Your task to perform on an android device: open app "Nova Launcher" (install if not already installed) Image 0: 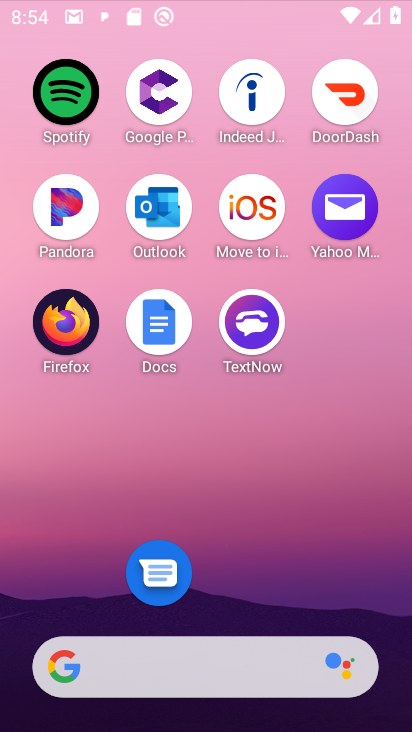
Step 0: click (227, 3)
Your task to perform on an android device: open app "Nova Launcher" (install if not already installed) Image 1: 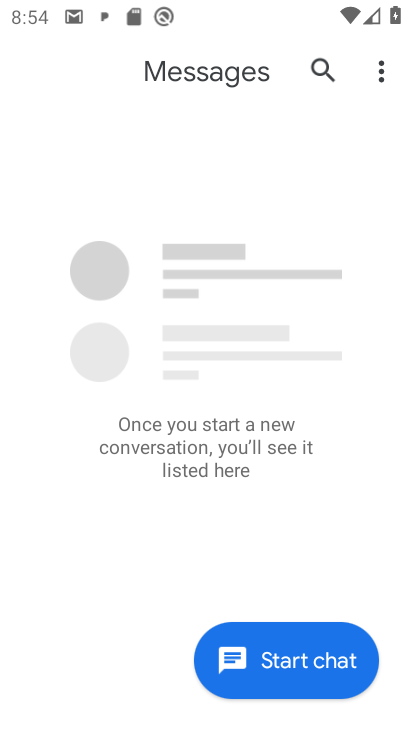
Step 1: press home button
Your task to perform on an android device: open app "Nova Launcher" (install if not already installed) Image 2: 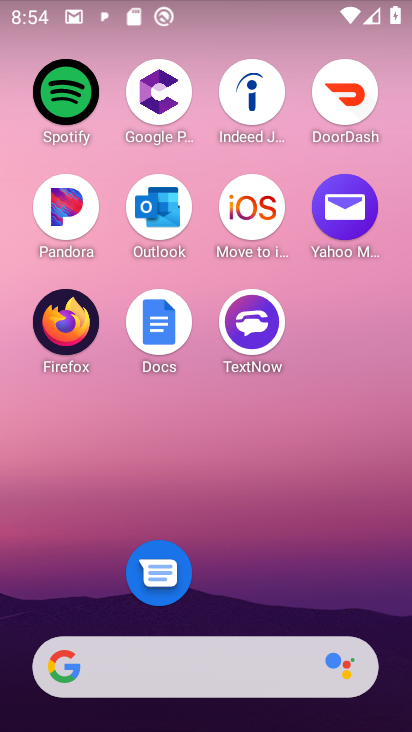
Step 2: drag from (224, 593) to (249, 49)
Your task to perform on an android device: open app "Nova Launcher" (install if not already installed) Image 3: 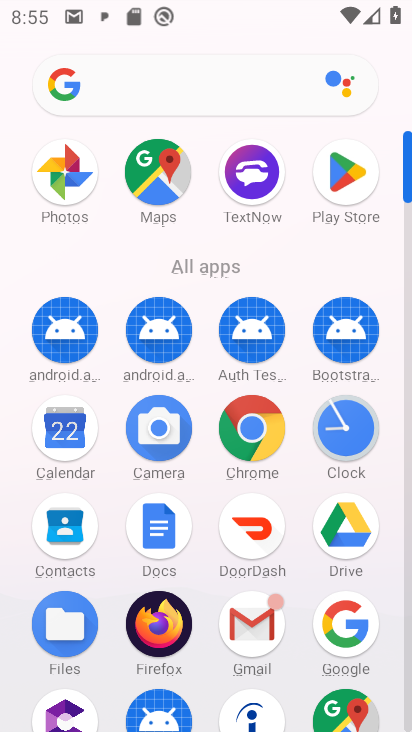
Step 3: click (355, 176)
Your task to perform on an android device: open app "Nova Launcher" (install if not already installed) Image 4: 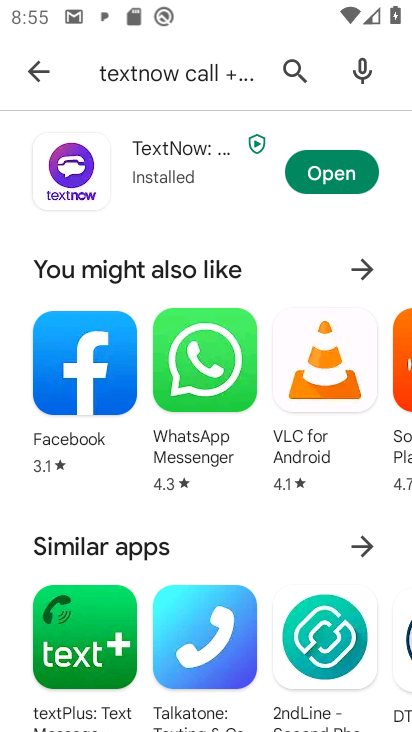
Step 4: click (147, 67)
Your task to perform on an android device: open app "Nova Launcher" (install if not already installed) Image 5: 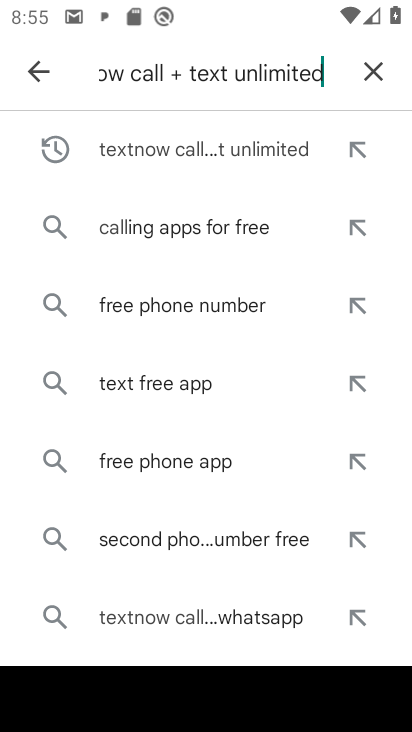
Step 5: click (371, 71)
Your task to perform on an android device: open app "Nova Launcher" (install if not already installed) Image 6: 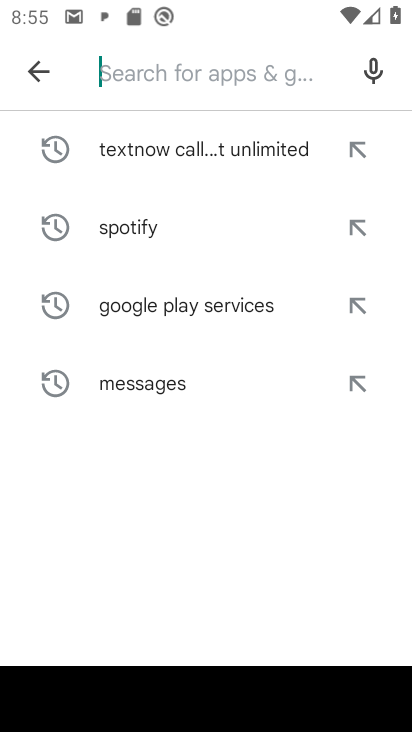
Step 6: type "Nova launcher"
Your task to perform on an android device: open app "Nova Launcher" (install if not already installed) Image 7: 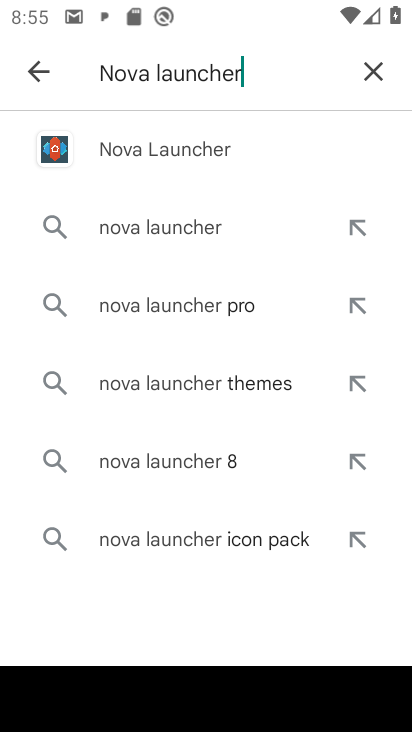
Step 7: click (186, 155)
Your task to perform on an android device: open app "Nova Launcher" (install if not already installed) Image 8: 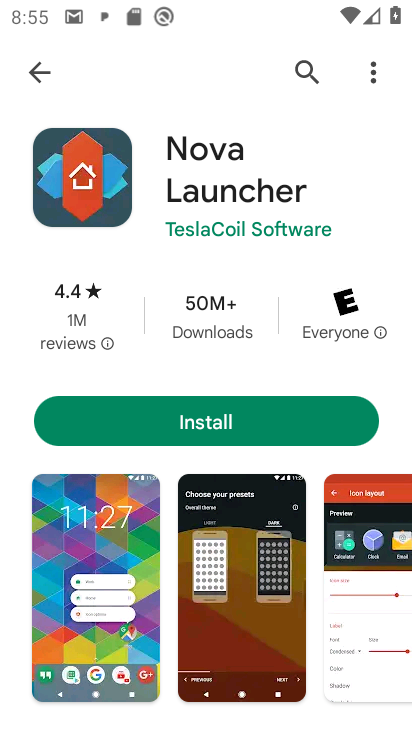
Step 8: click (215, 422)
Your task to perform on an android device: open app "Nova Launcher" (install if not already installed) Image 9: 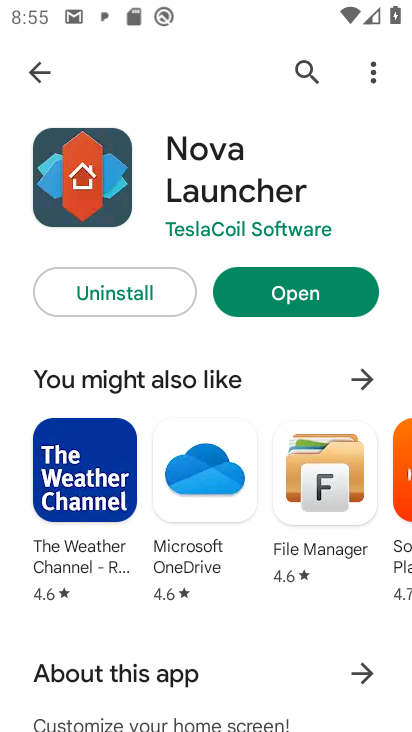
Step 9: click (287, 293)
Your task to perform on an android device: open app "Nova Launcher" (install if not already installed) Image 10: 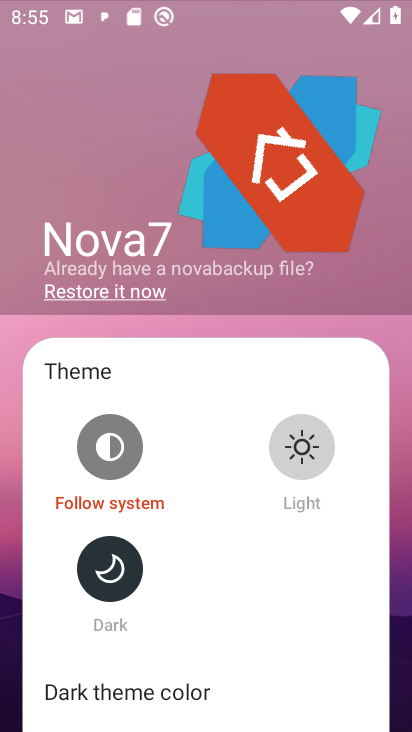
Step 10: task complete